Your task to perform on an android device: turn off location history Image 0: 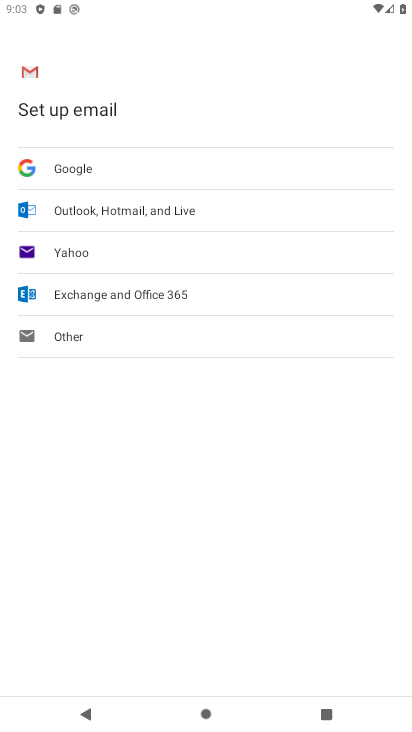
Step 0: press home button
Your task to perform on an android device: turn off location history Image 1: 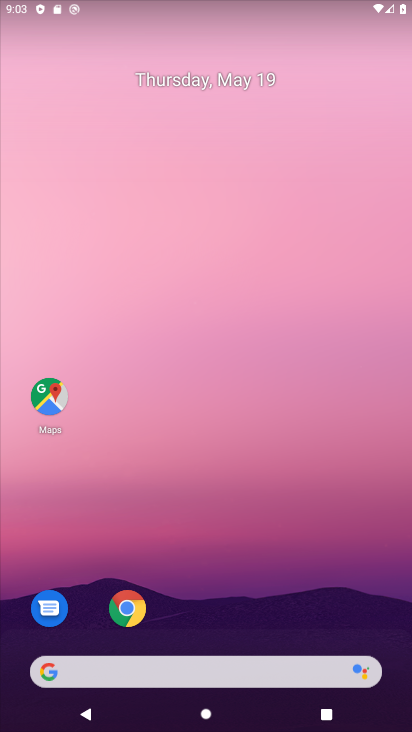
Step 1: drag from (222, 611) to (254, 18)
Your task to perform on an android device: turn off location history Image 2: 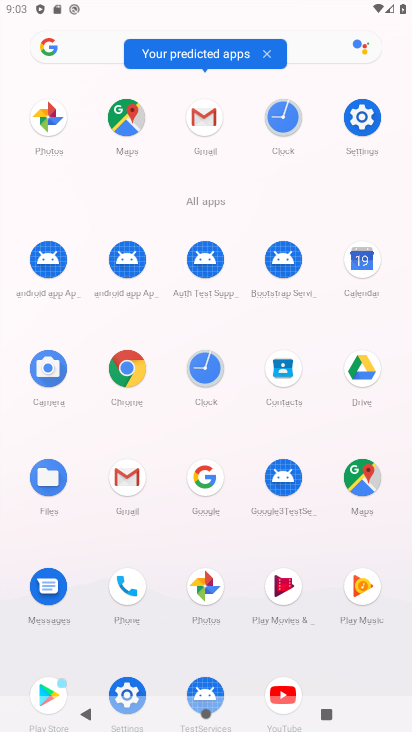
Step 2: click (359, 115)
Your task to perform on an android device: turn off location history Image 3: 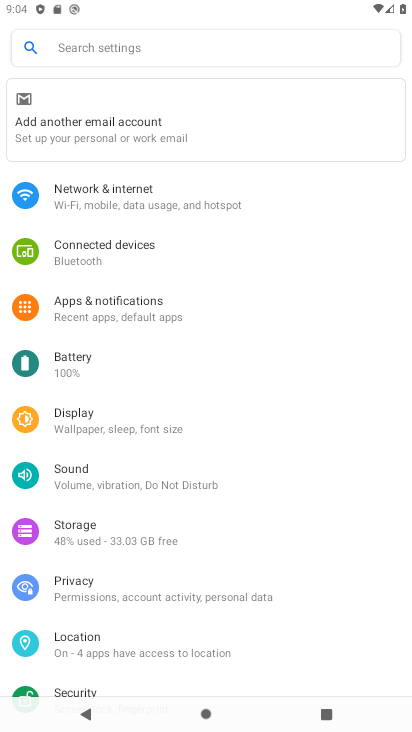
Step 3: click (80, 638)
Your task to perform on an android device: turn off location history Image 4: 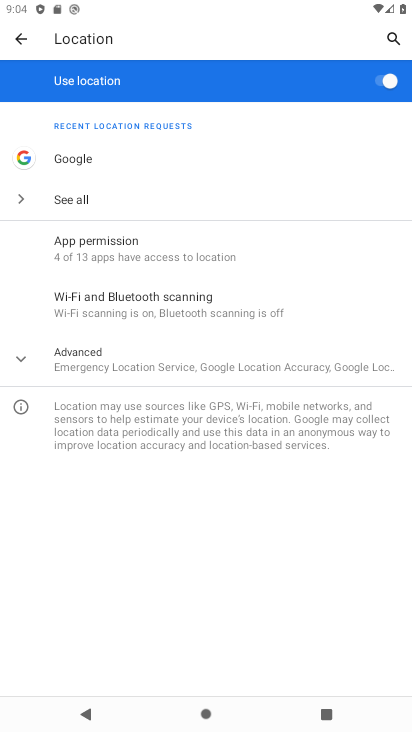
Step 4: click (22, 356)
Your task to perform on an android device: turn off location history Image 5: 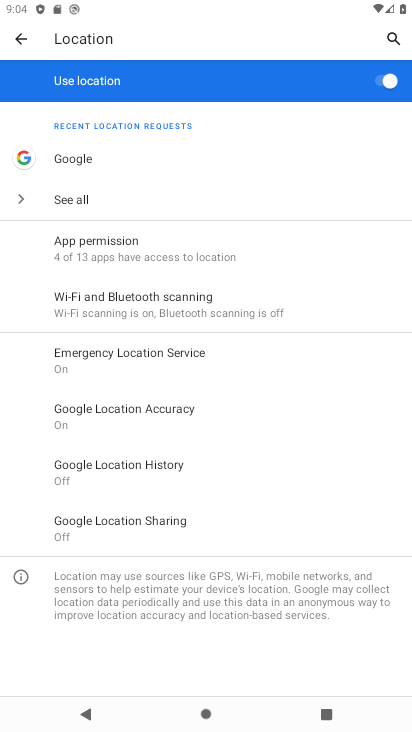
Step 5: click (161, 468)
Your task to perform on an android device: turn off location history Image 6: 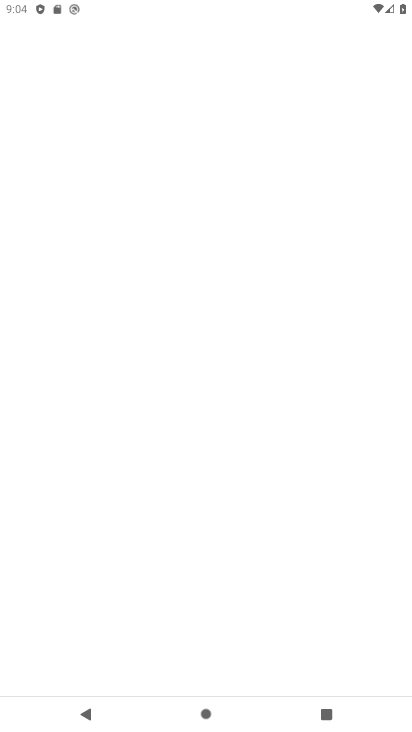
Step 6: task complete